Your task to perform on an android device: open app "File Manager" Image 0: 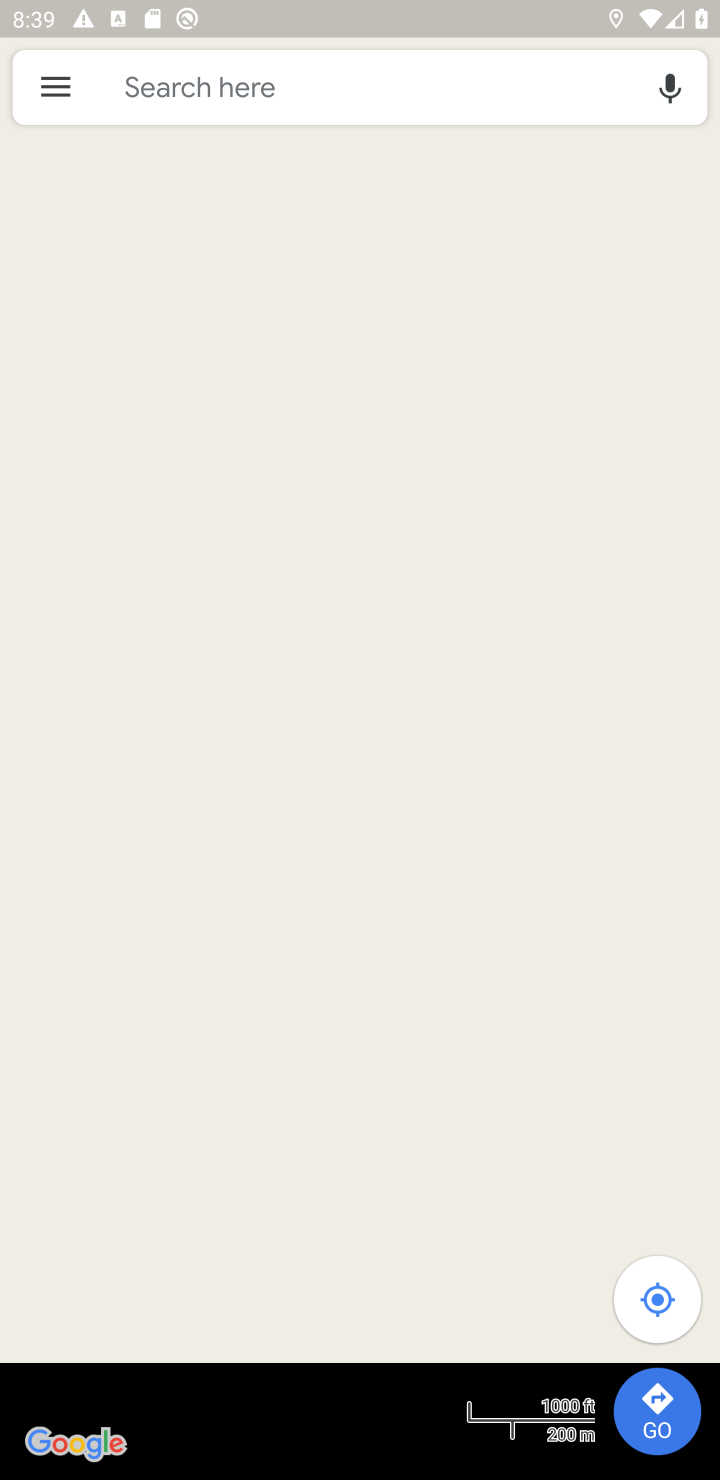
Step 0: press home button
Your task to perform on an android device: open app "File Manager" Image 1: 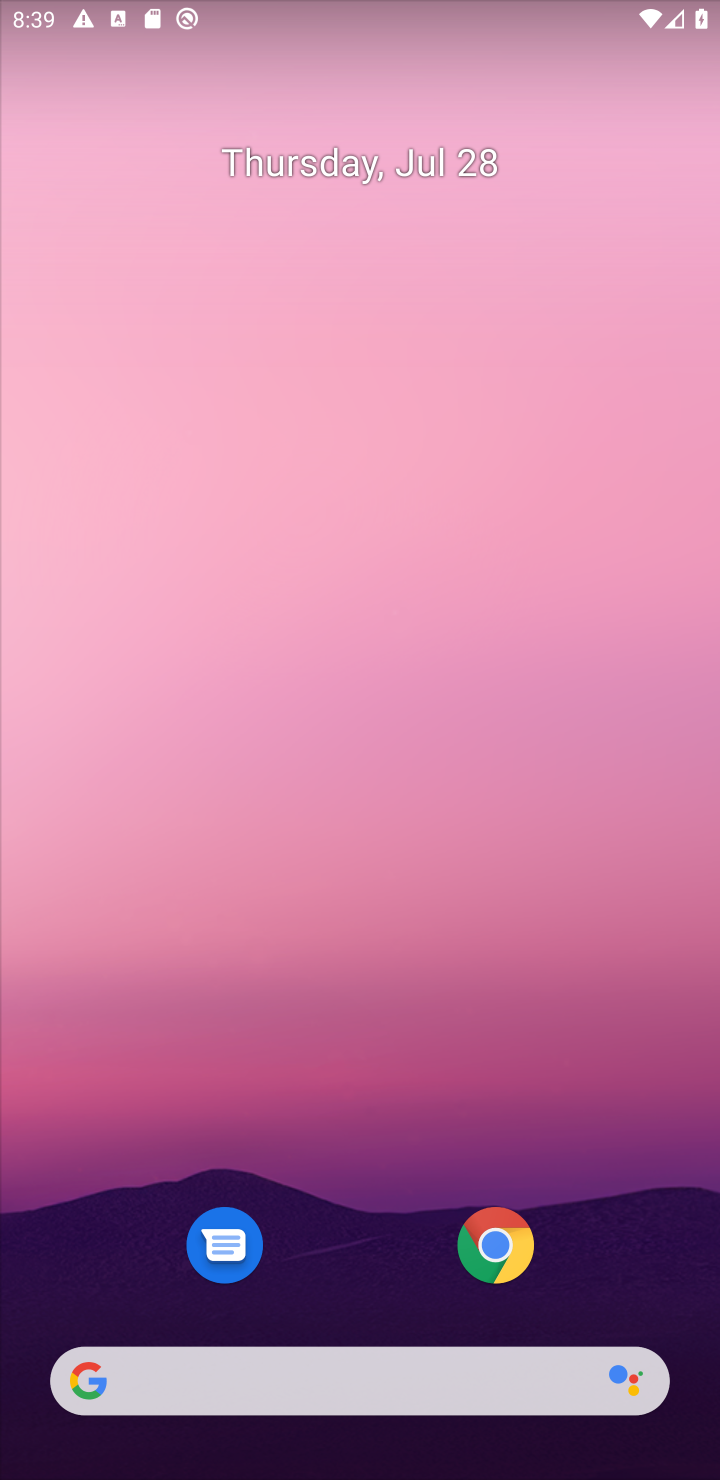
Step 1: drag from (406, 1296) to (406, 271)
Your task to perform on an android device: open app "File Manager" Image 2: 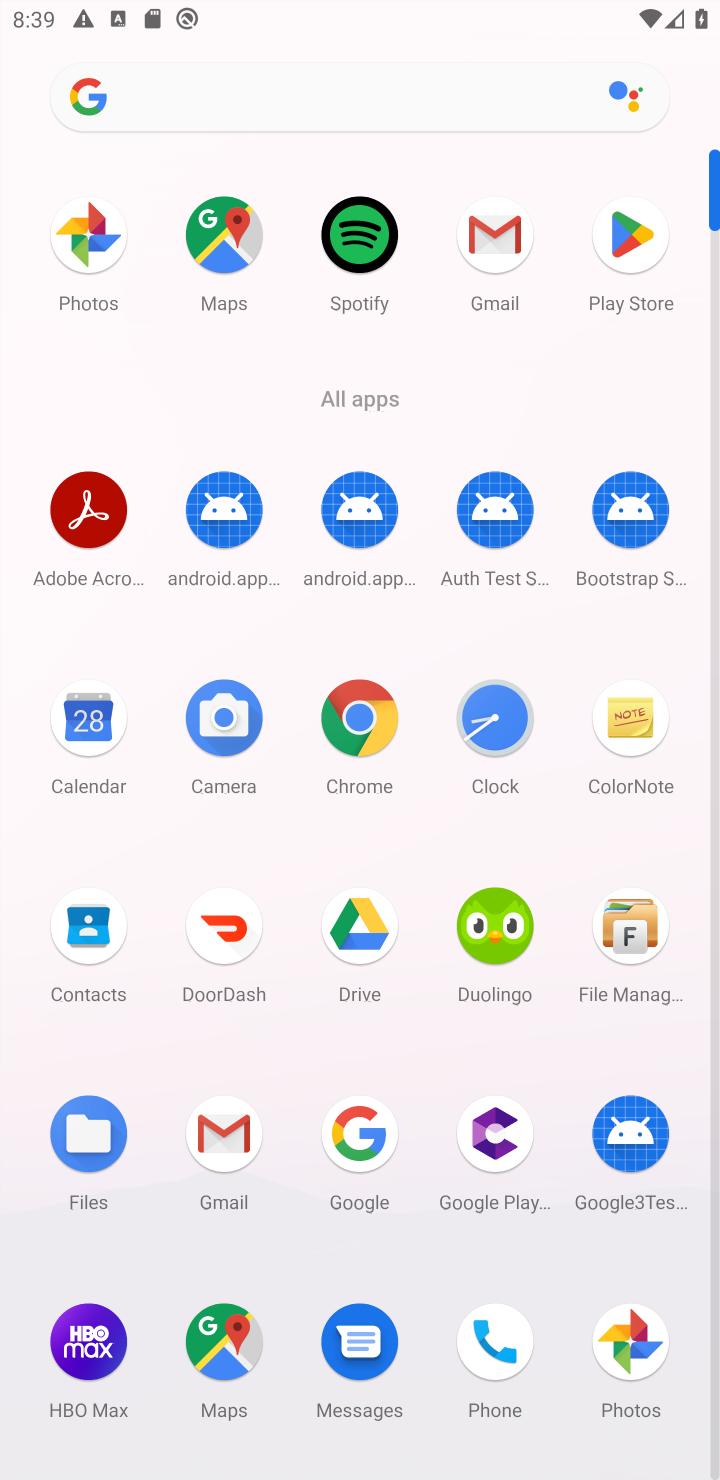
Step 2: click (625, 235)
Your task to perform on an android device: open app "File Manager" Image 3: 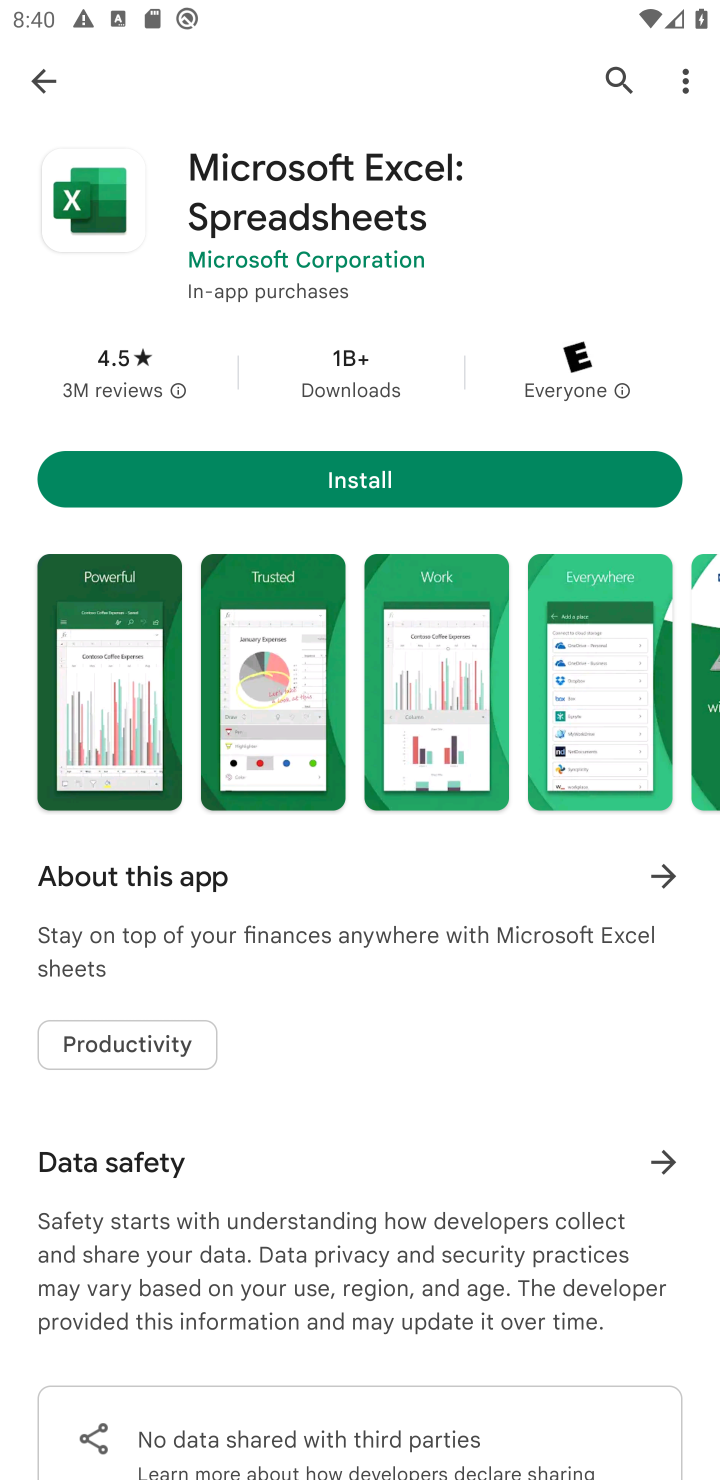
Step 3: click (614, 76)
Your task to perform on an android device: open app "File Manager" Image 4: 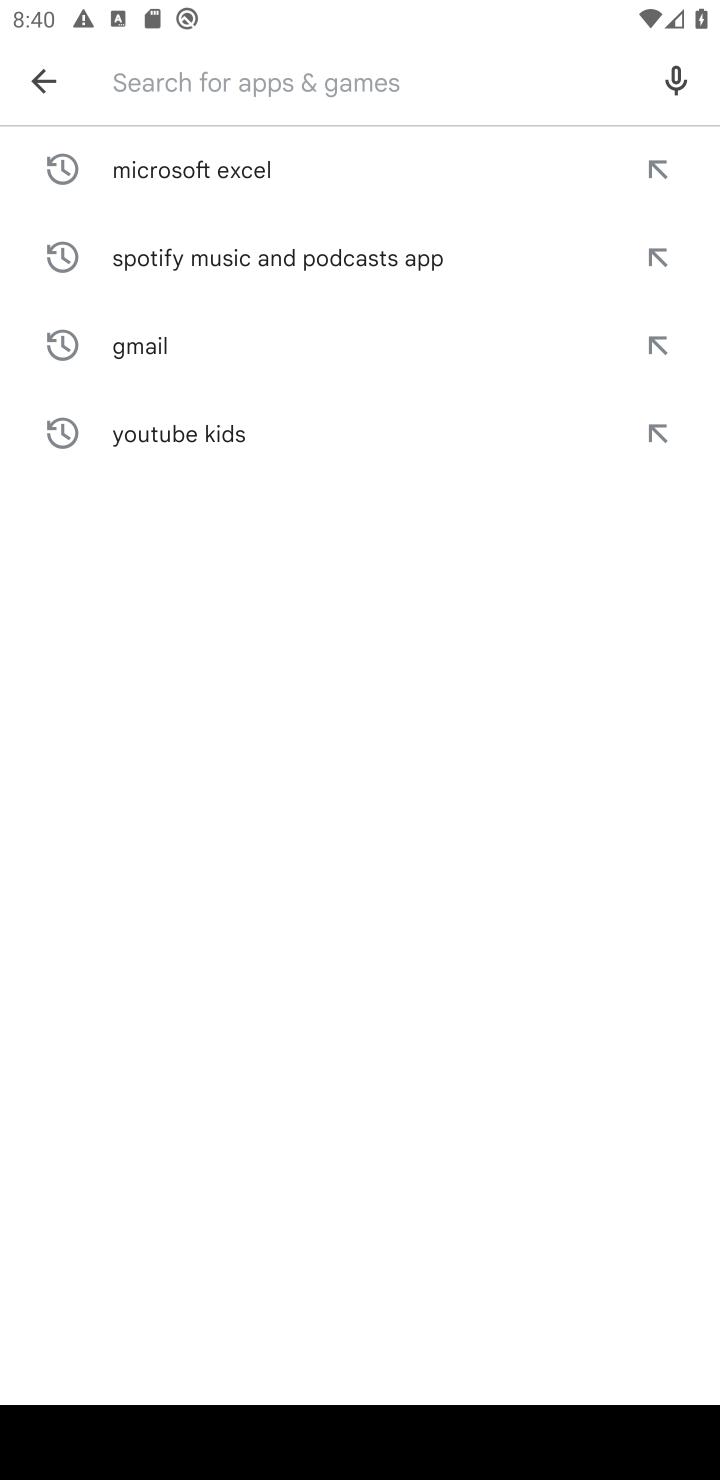
Step 4: type "file manager"
Your task to perform on an android device: open app "File Manager" Image 5: 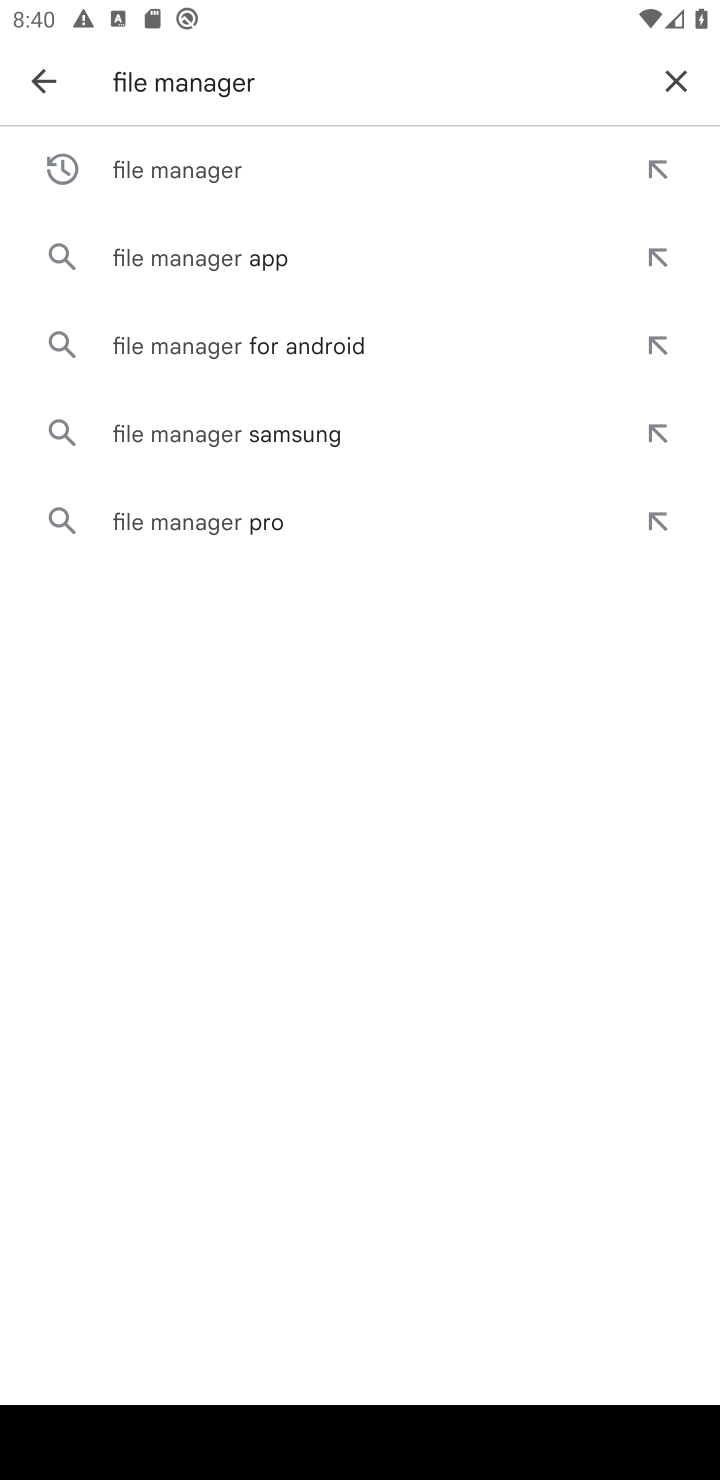
Step 5: click (232, 176)
Your task to perform on an android device: open app "File Manager" Image 6: 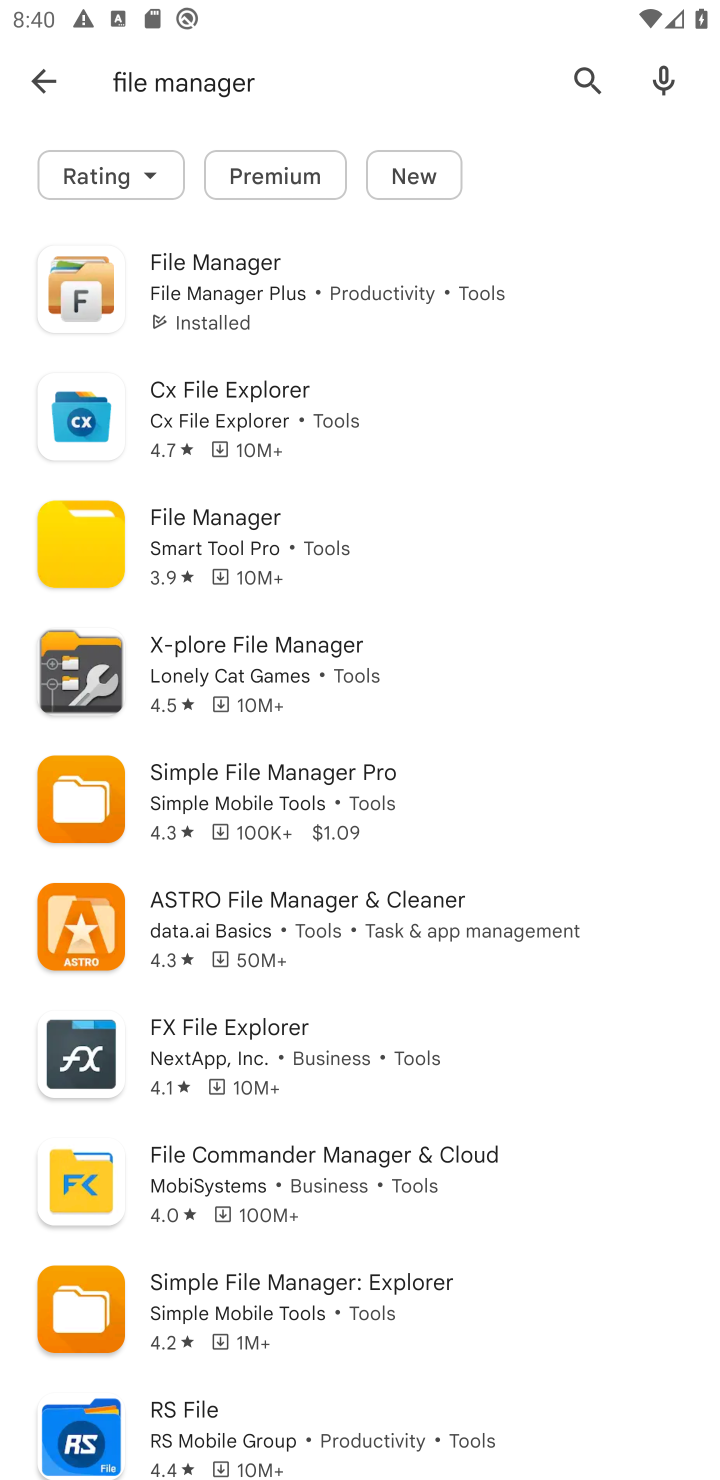
Step 6: click (232, 263)
Your task to perform on an android device: open app "File Manager" Image 7: 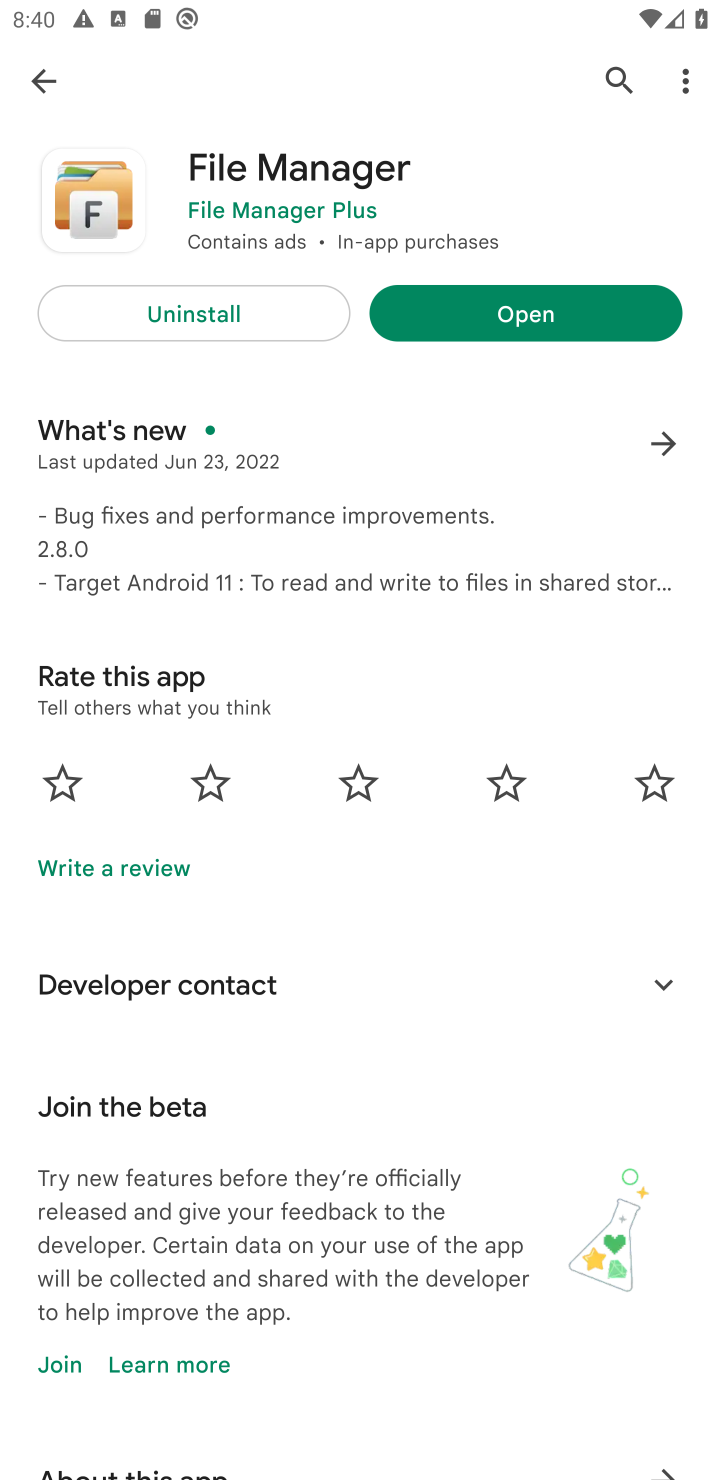
Step 7: click (474, 308)
Your task to perform on an android device: open app "File Manager" Image 8: 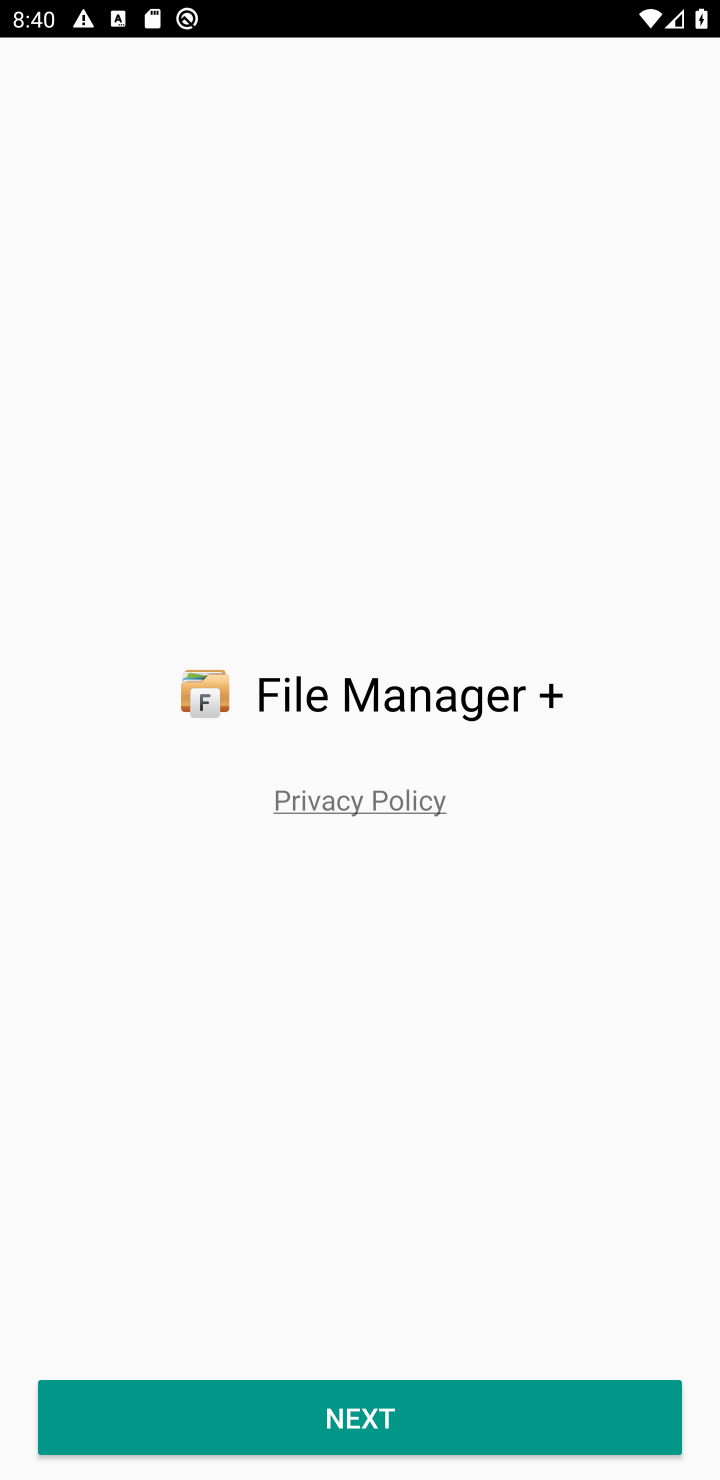
Step 8: task complete